Your task to perform on an android device: Open settings Image 0: 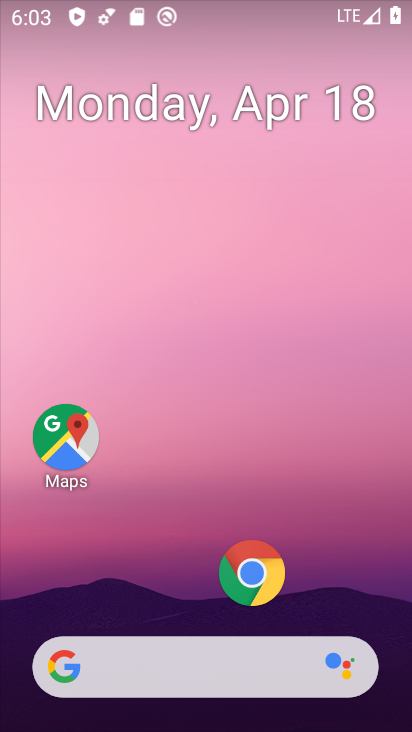
Step 0: drag from (154, 608) to (195, 17)
Your task to perform on an android device: Open settings Image 1: 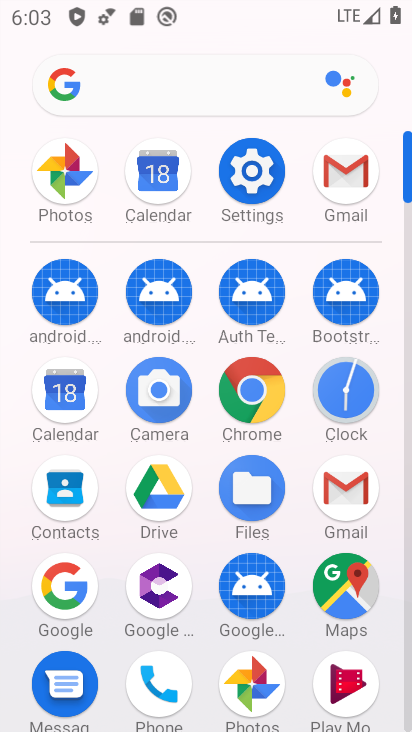
Step 1: click (260, 179)
Your task to perform on an android device: Open settings Image 2: 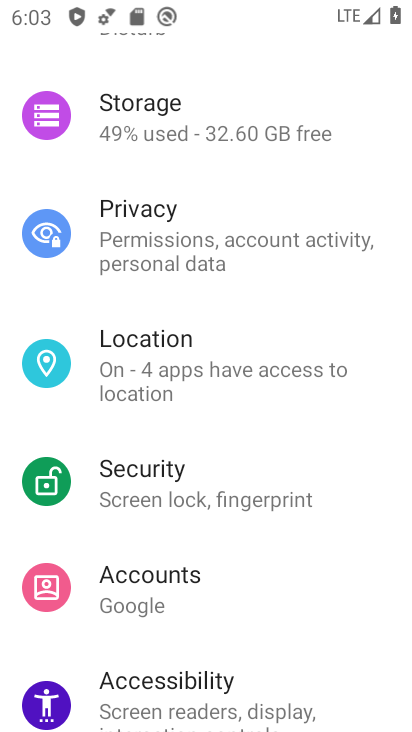
Step 2: task complete